Your task to perform on an android device: open chrome privacy settings Image 0: 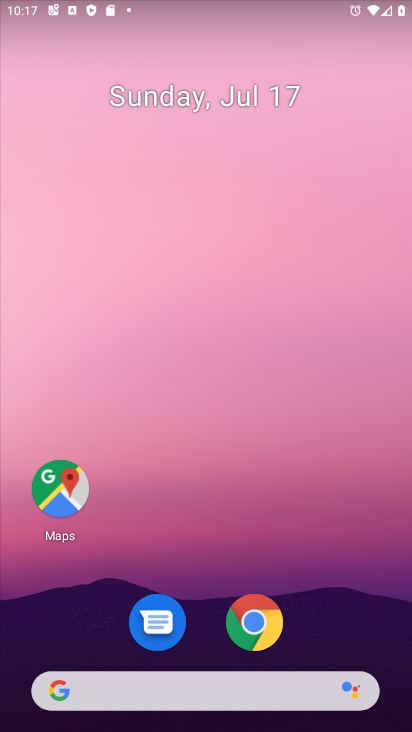
Step 0: click (270, 618)
Your task to perform on an android device: open chrome privacy settings Image 1: 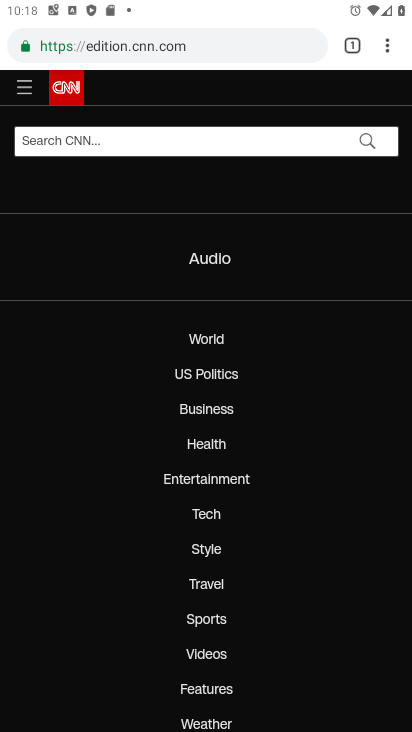
Step 1: click (388, 48)
Your task to perform on an android device: open chrome privacy settings Image 2: 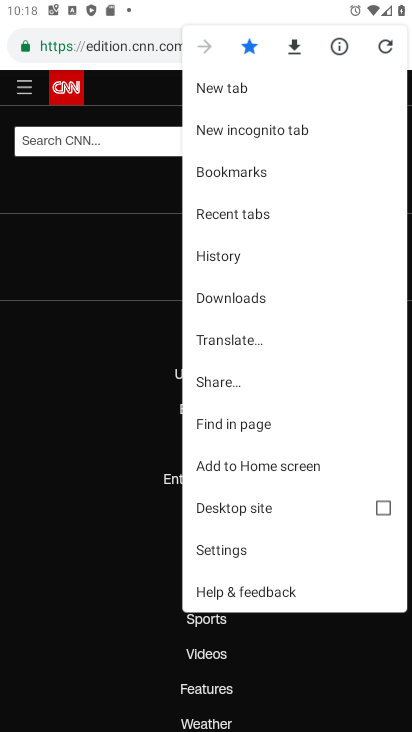
Step 2: click (271, 548)
Your task to perform on an android device: open chrome privacy settings Image 3: 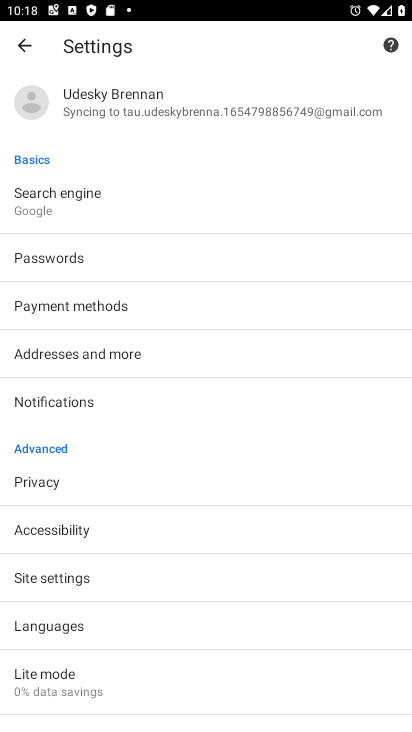
Step 3: click (75, 471)
Your task to perform on an android device: open chrome privacy settings Image 4: 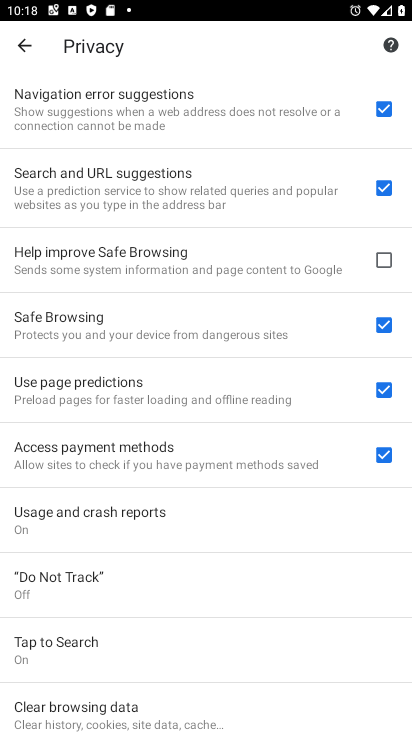
Step 4: task complete